Your task to perform on an android device: check android version Image 0: 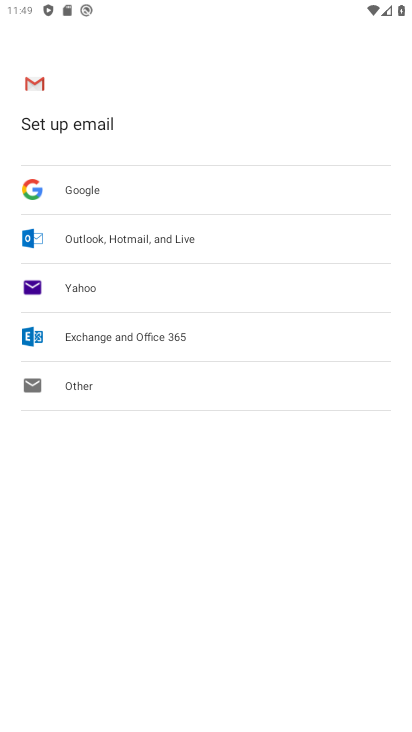
Step 0: press home button
Your task to perform on an android device: check android version Image 1: 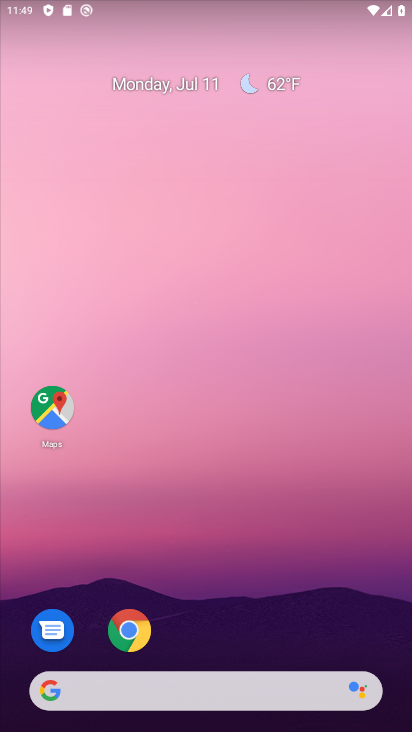
Step 1: drag from (228, 590) to (255, 139)
Your task to perform on an android device: check android version Image 2: 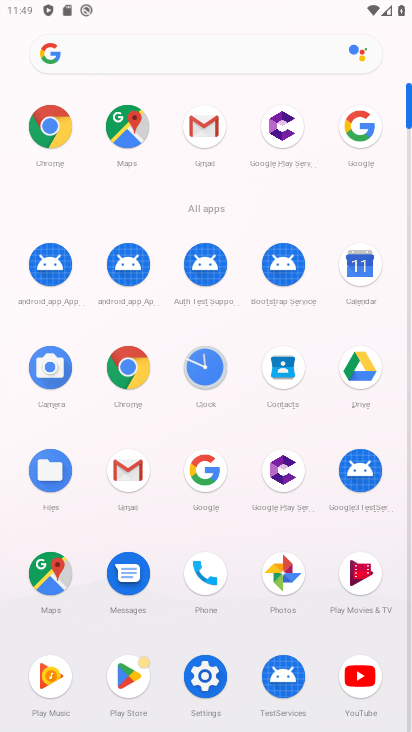
Step 2: click (202, 677)
Your task to perform on an android device: check android version Image 3: 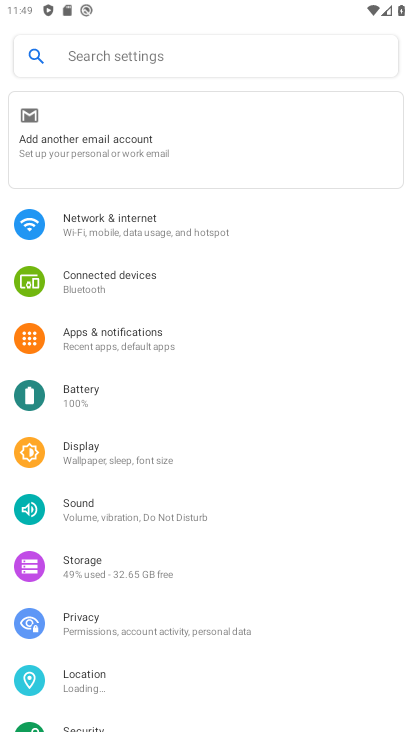
Step 3: drag from (203, 600) to (282, 44)
Your task to perform on an android device: check android version Image 4: 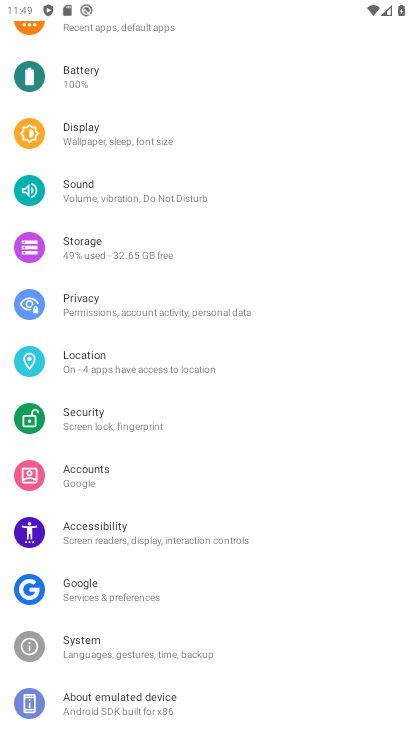
Step 4: click (124, 698)
Your task to perform on an android device: check android version Image 5: 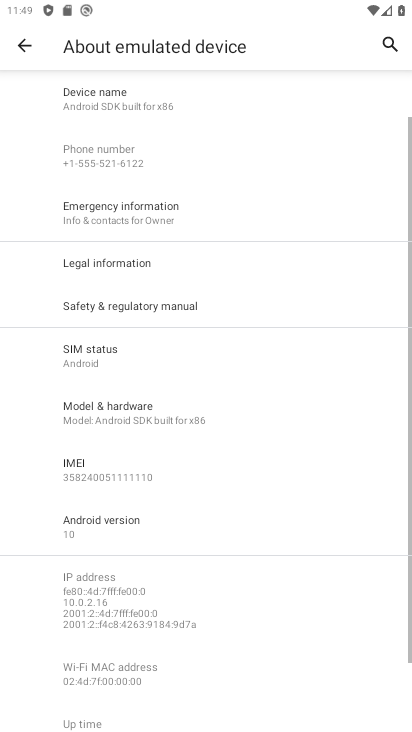
Step 5: click (137, 527)
Your task to perform on an android device: check android version Image 6: 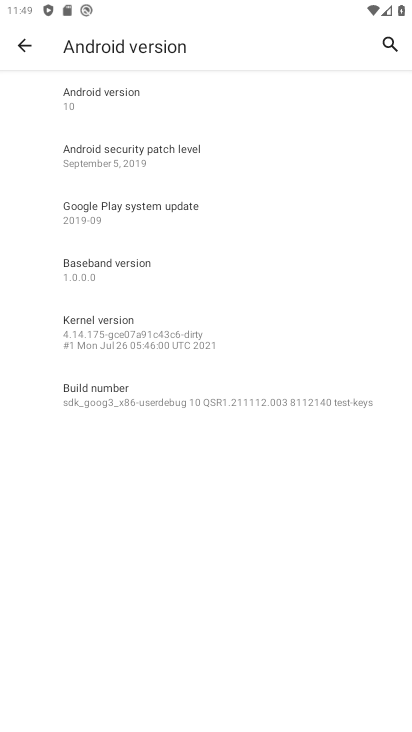
Step 6: click (128, 99)
Your task to perform on an android device: check android version Image 7: 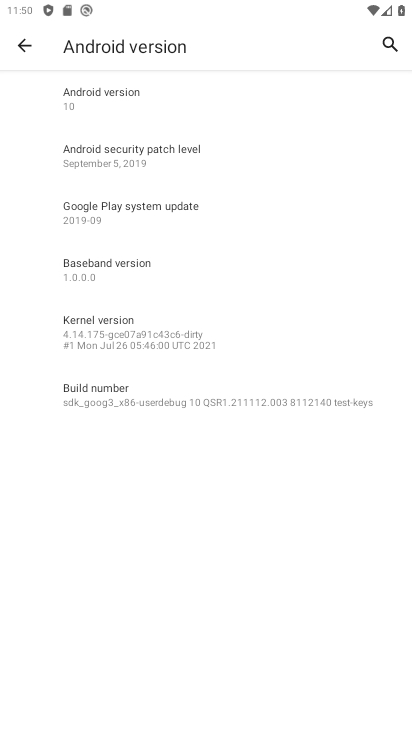
Step 7: task complete